Your task to perform on an android device: toggle pop-ups in chrome Image 0: 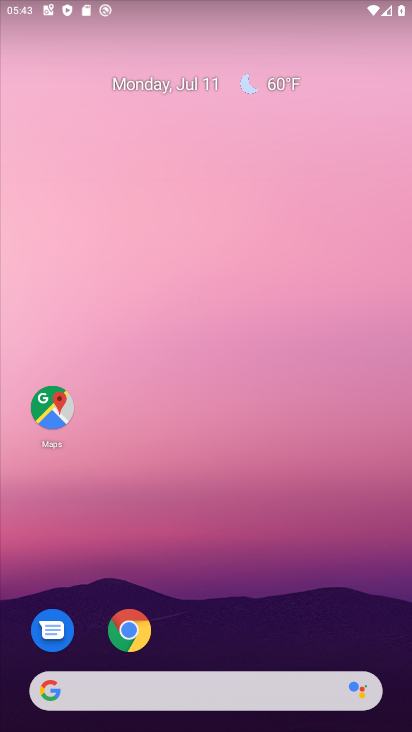
Step 0: drag from (187, 600) to (252, 269)
Your task to perform on an android device: toggle pop-ups in chrome Image 1: 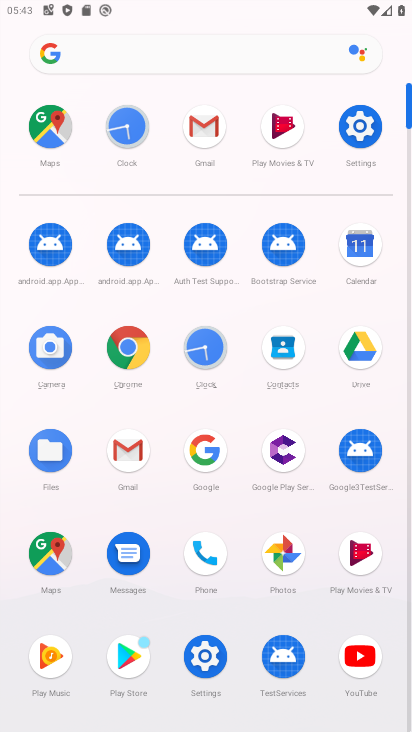
Step 1: click (124, 344)
Your task to perform on an android device: toggle pop-ups in chrome Image 2: 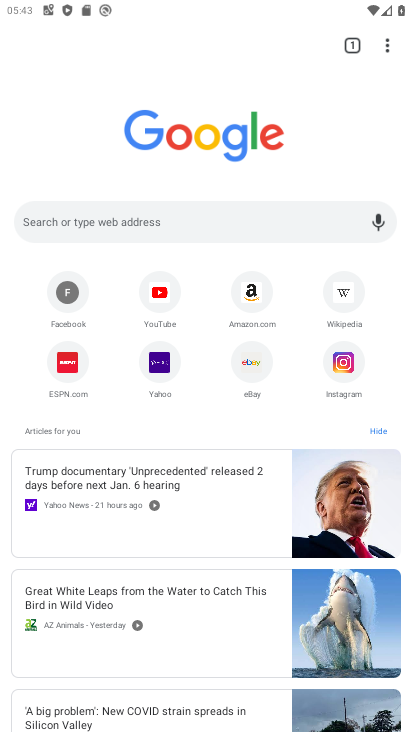
Step 2: click (385, 46)
Your task to perform on an android device: toggle pop-ups in chrome Image 3: 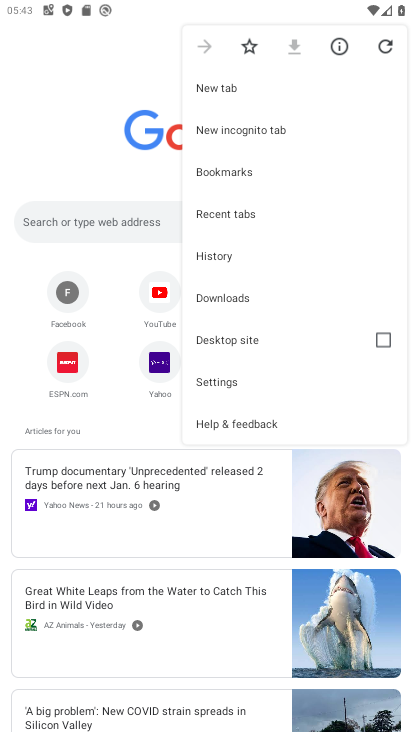
Step 3: click (211, 377)
Your task to perform on an android device: toggle pop-ups in chrome Image 4: 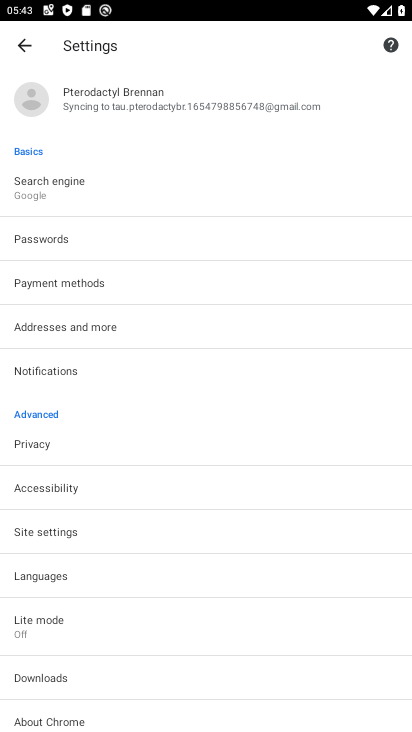
Step 4: click (56, 525)
Your task to perform on an android device: toggle pop-ups in chrome Image 5: 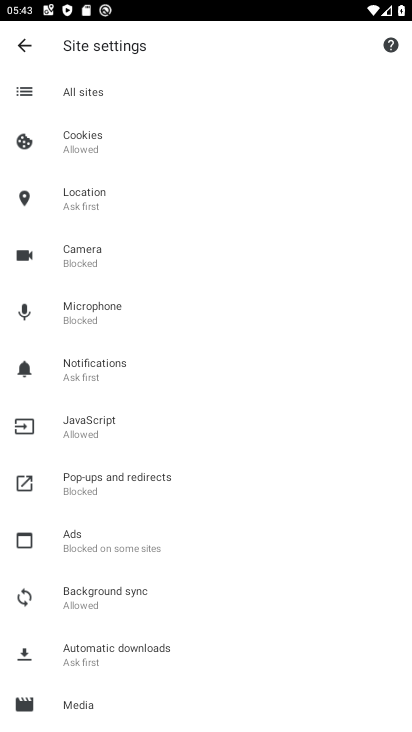
Step 5: click (145, 482)
Your task to perform on an android device: toggle pop-ups in chrome Image 6: 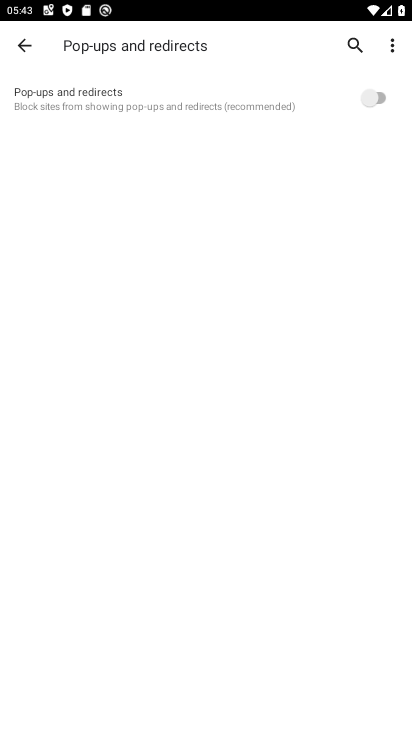
Step 6: click (384, 102)
Your task to perform on an android device: toggle pop-ups in chrome Image 7: 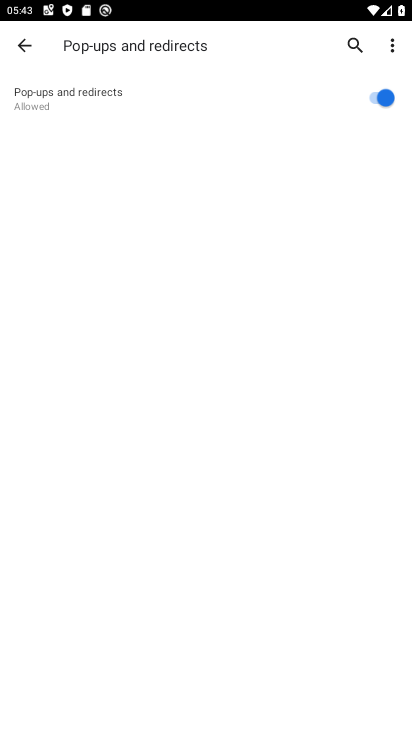
Step 7: task complete